Your task to perform on an android device: Open wifi settings Image 0: 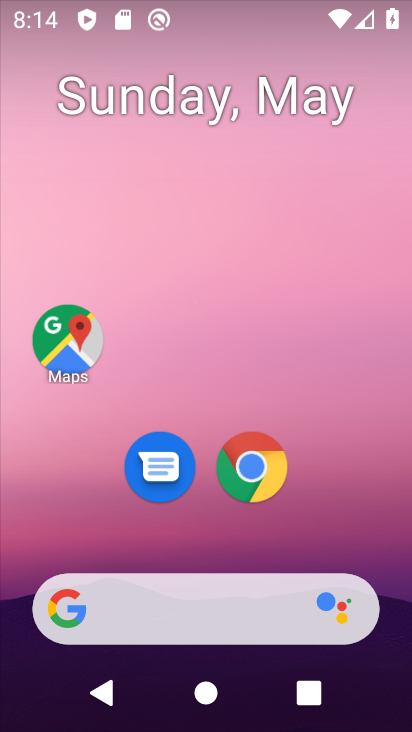
Step 0: drag from (396, 644) to (323, 99)
Your task to perform on an android device: Open wifi settings Image 1: 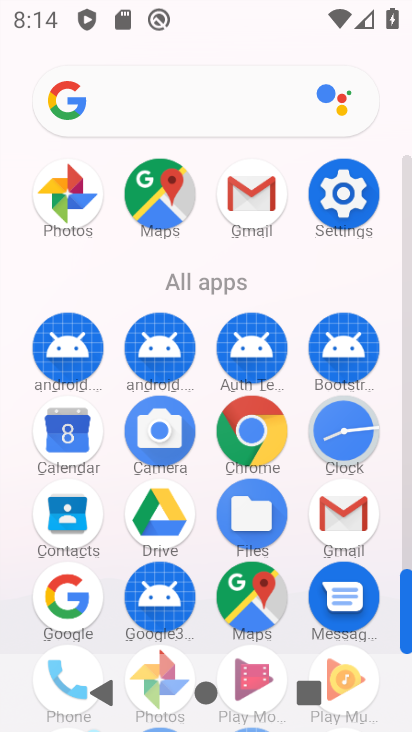
Step 1: drag from (405, 539) to (408, 476)
Your task to perform on an android device: Open wifi settings Image 2: 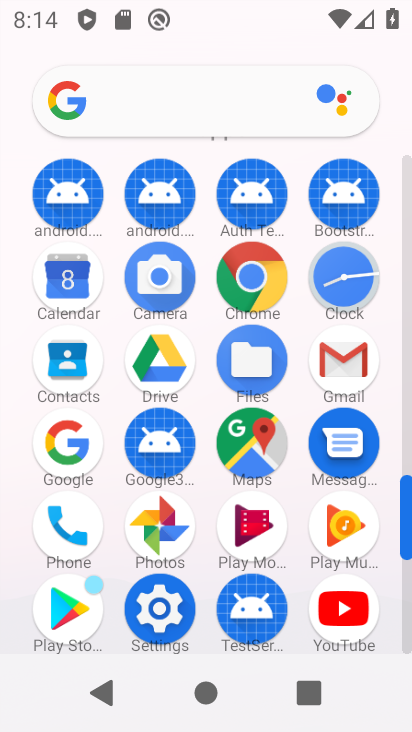
Step 2: click (157, 608)
Your task to perform on an android device: Open wifi settings Image 3: 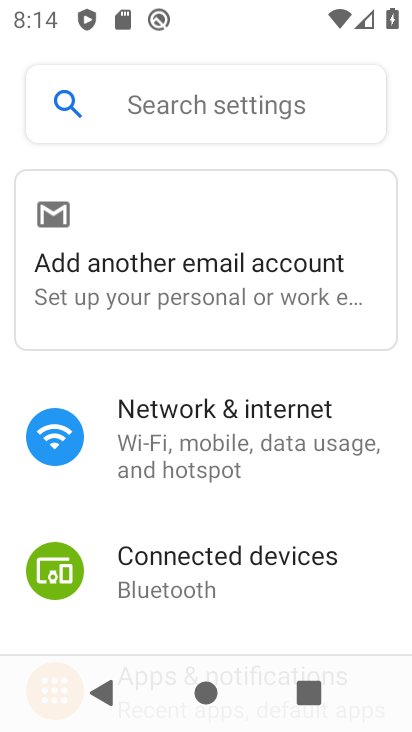
Step 3: click (162, 427)
Your task to perform on an android device: Open wifi settings Image 4: 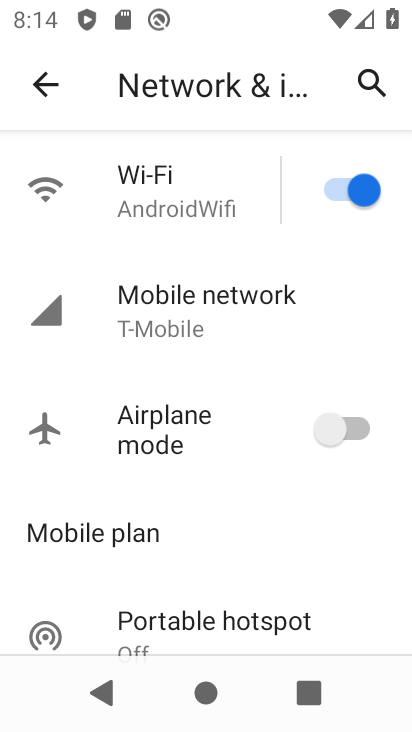
Step 4: click (114, 189)
Your task to perform on an android device: Open wifi settings Image 5: 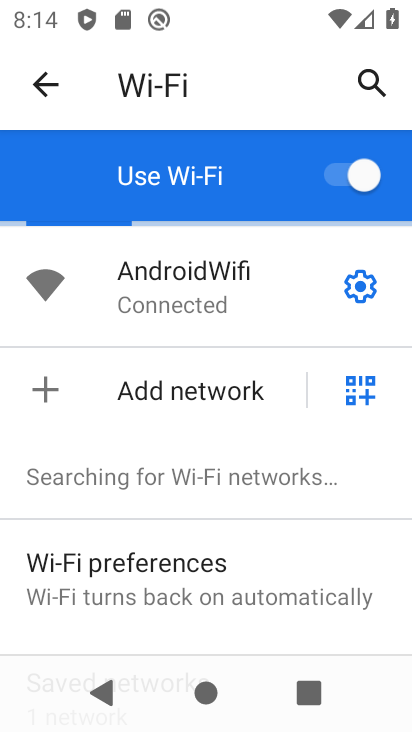
Step 5: drag from (176, 581) to (195, 192)
Your task to perform on an android device: Open wifi settings Image 6: 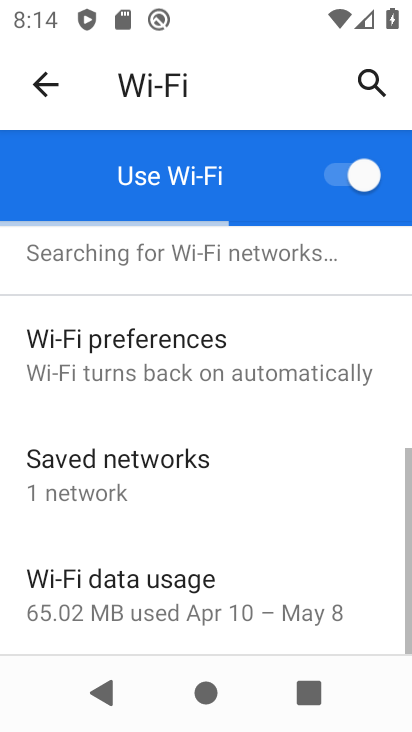
Step 6: drag from (236, 357) to (212, 605)
Your task to perform on an android device: Open wifi settings Image 7: 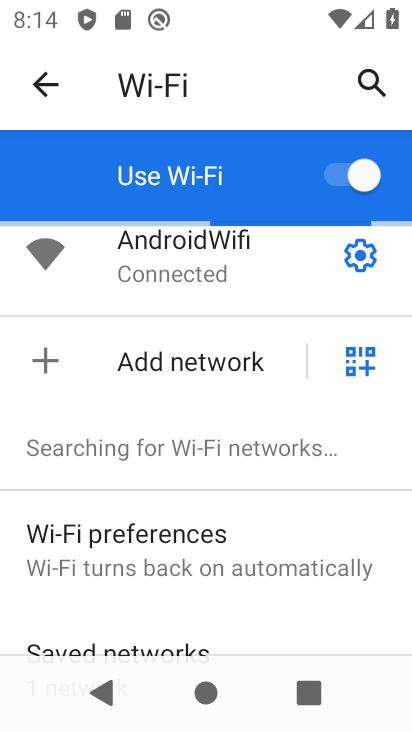
Step 7: click (357, 248)
Your task to perform on an android device: Open wifi settings Image 8: 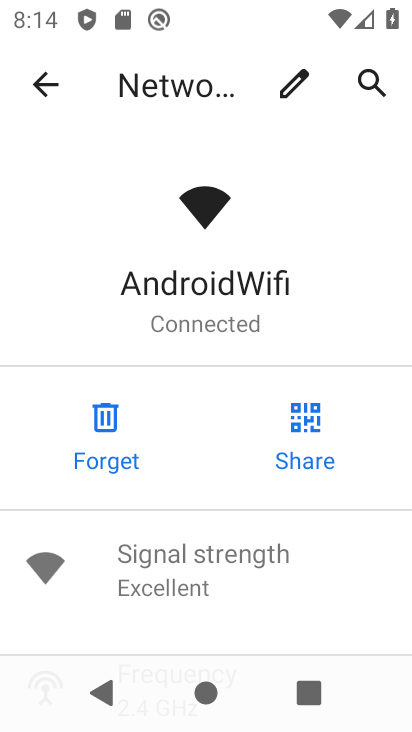
Step 8: drag from (203, 597) to (228, 141)
Your task to perform on an android device: Open wifi settings Image 9: 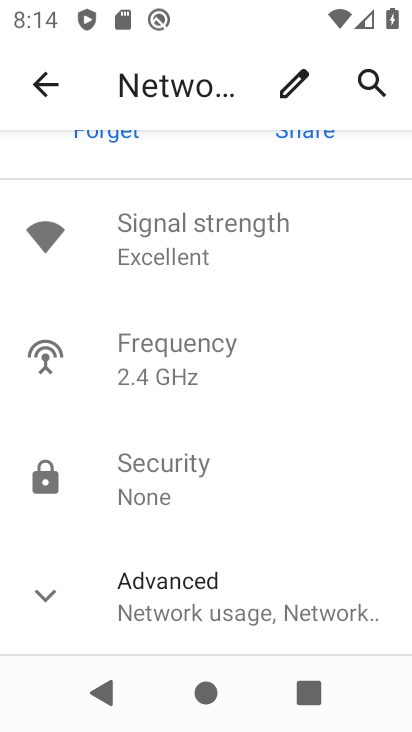
Step 9: click (32, 588)
Your task to perform on an android device: Open wifi settings Image 10: 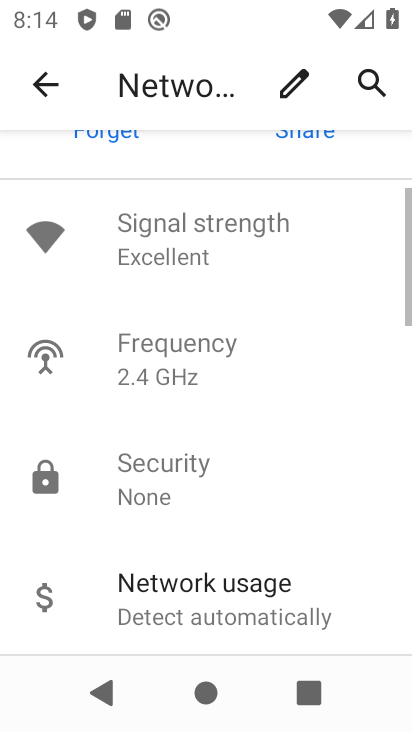
Step 10: task complete